Your task to perform on an android device: open device folders in google photos Image 0: 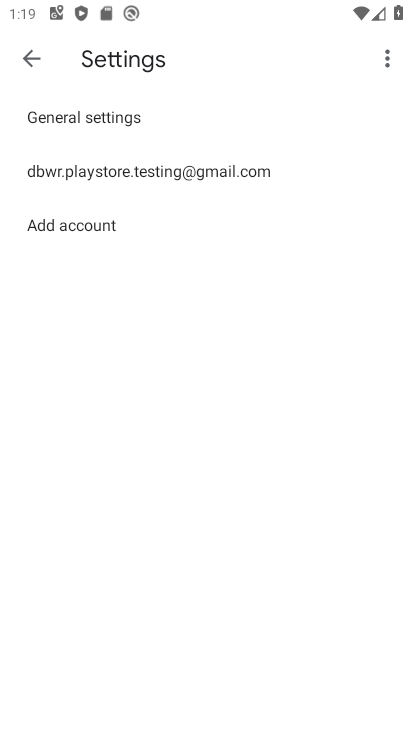
Step 0: press home button
Your task to perform on an android device: open device folders in google photos Image 1: 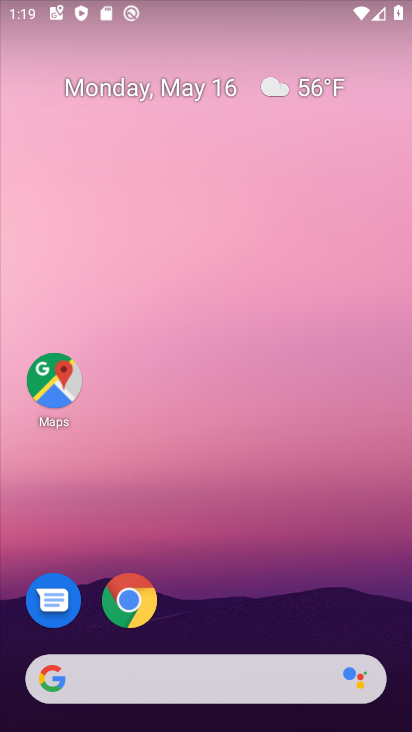
Step 1: drag from (230, 594) to (212, 45)
Your task to perform on an android device: open device folders in google photos Image 2: 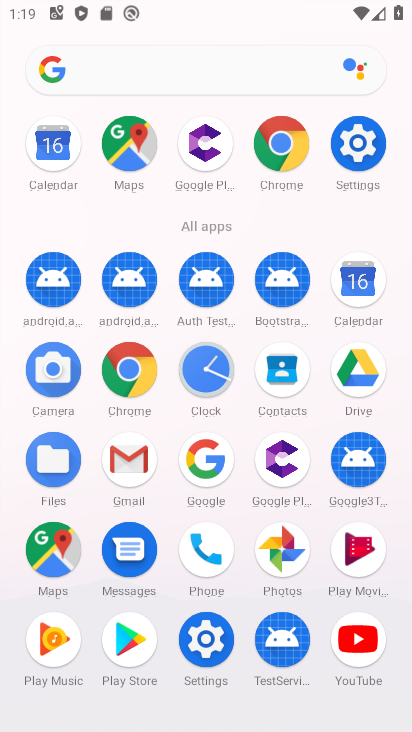
Step 2: click (263, 538)
Your task to perform on an android device: open device folders in google photos Image 3: 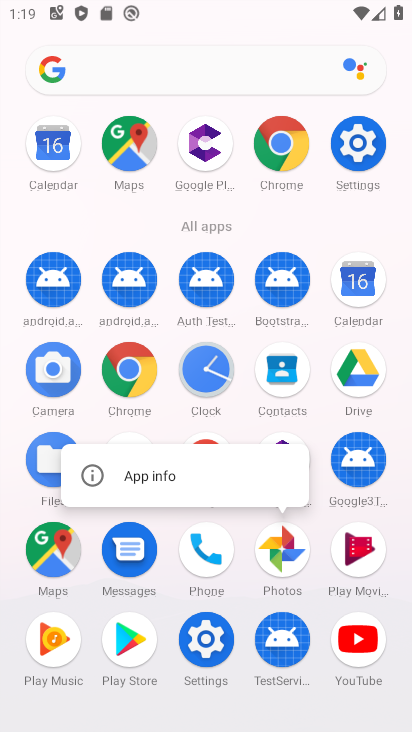
Step 3: click (283, 548)
Your task to perform on an android device: open device folders in google photos Image 4: 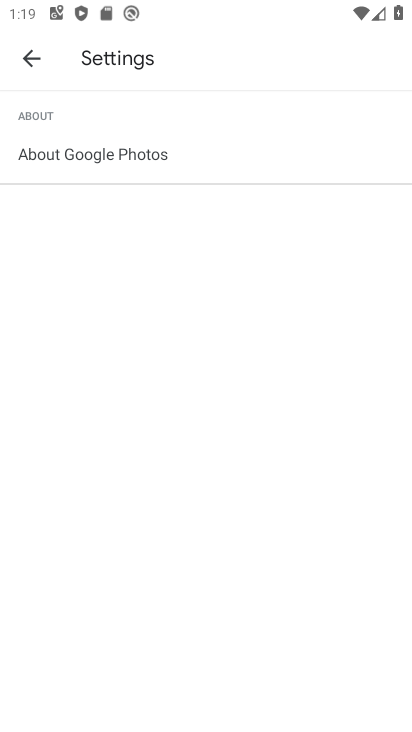
Step 4: click (26, 63)
Your task to perform on an android device: open device folders in google photos Image 5: 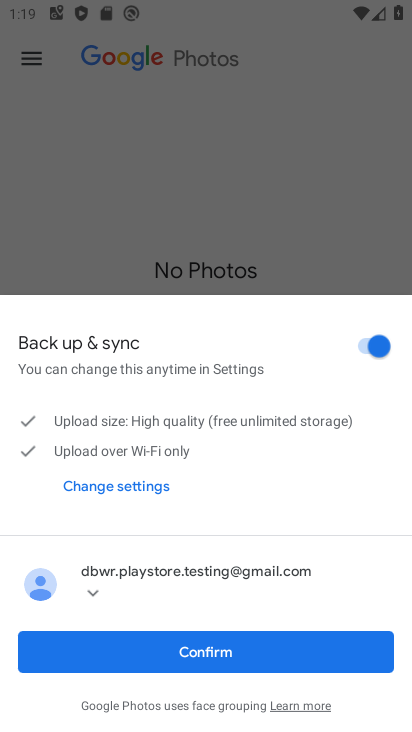
Step 5: click (164, 638)
Your task to perform on an android device: open device folders in google photos Image 6: 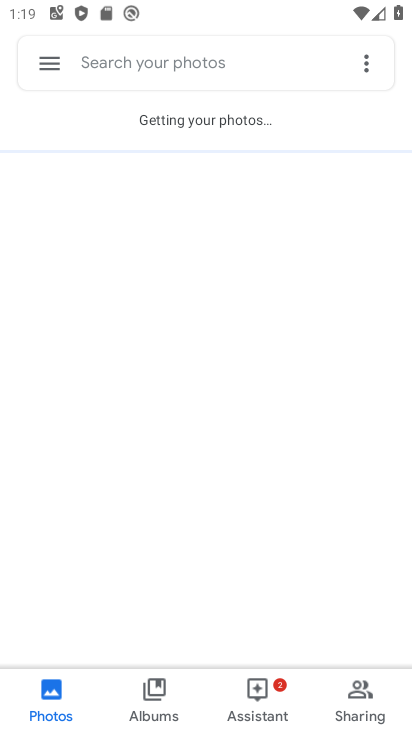
Step 6: click (44, 65)
Your task to perform on an android device: open device folders in google photos Image 7: 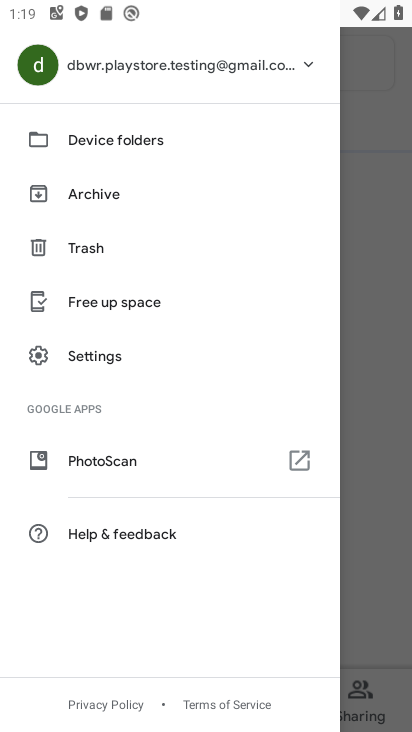
Step 7: click (122, 159)
Your task to perform on an android device: open device folders in google photos Image 8: 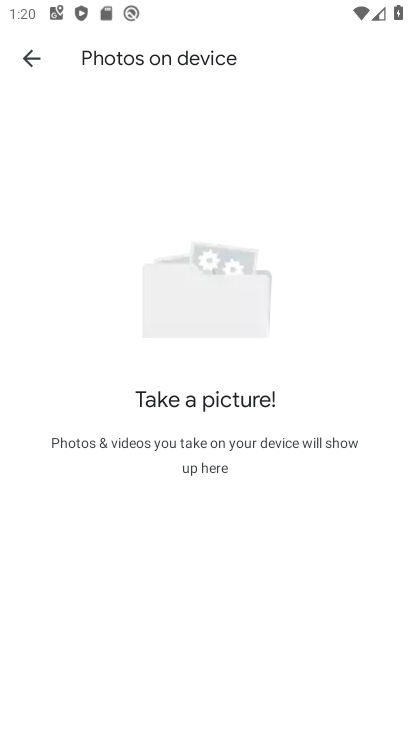
Step 8: task complete